Your task to perform on an android device: set the stopwatch Image 0: 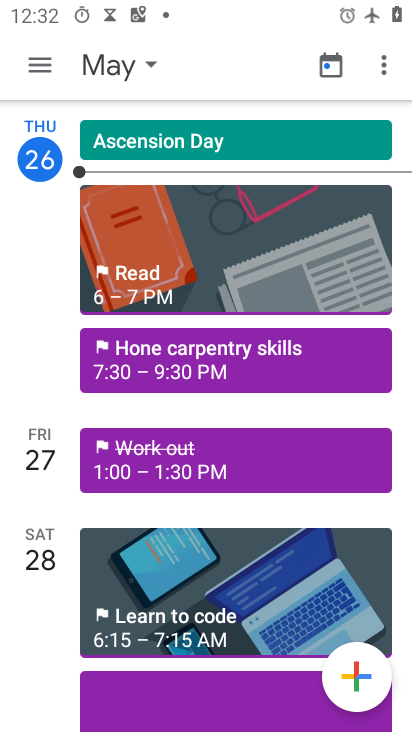
Step 0: press home button
Your task to perform on an android device: set the stopwatch Image 1: 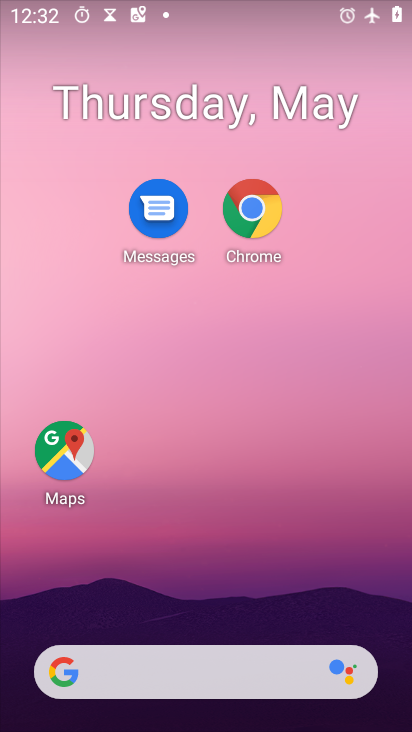
Step 1: drag from (191, 604) to (177, 53)
Your task to perform on an android device: set the stopwatch Image 2: 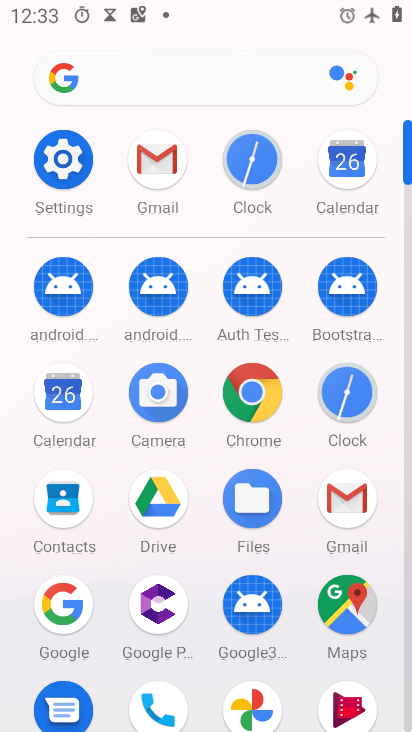
Step 2: click (340, 416)
Your task to perform on an android device: set the stopwatch Image 3: 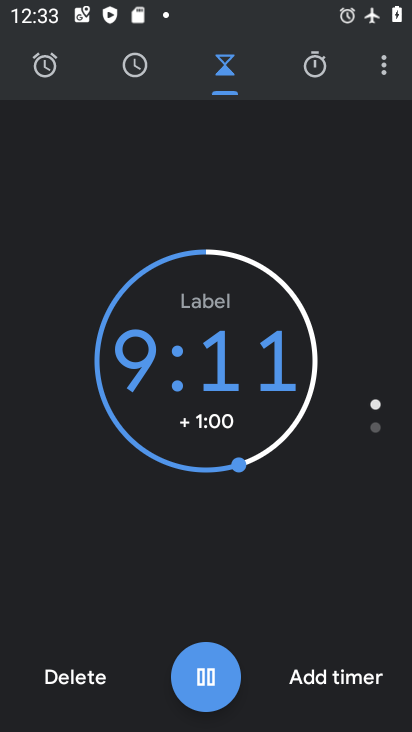
Step 3: click (324, 77)
Your task to perform on an android device: set the stopwatch Image 4: 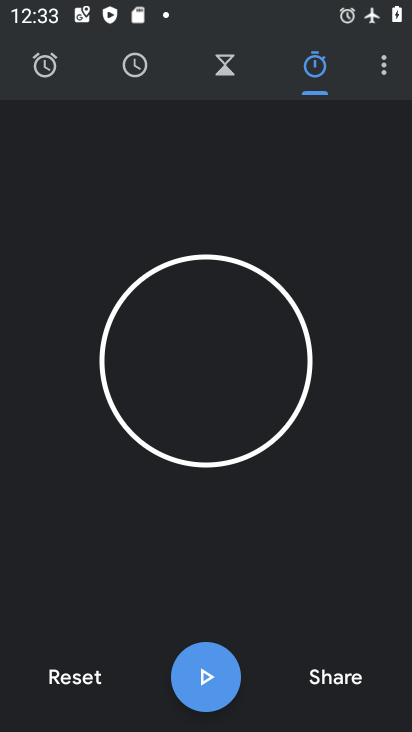
Step 4: click (62, 683)
Your task to perform on an android device: set the stopwatch Image 5: 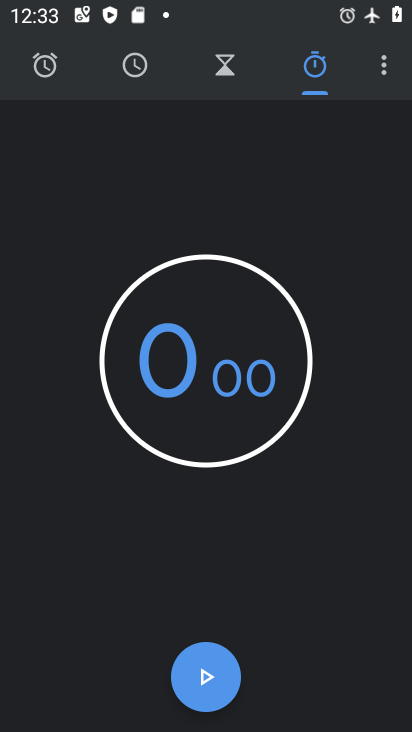
Step 5: click (195, 684)
Your task to perform on an android device: set the stopwatch Image 6: 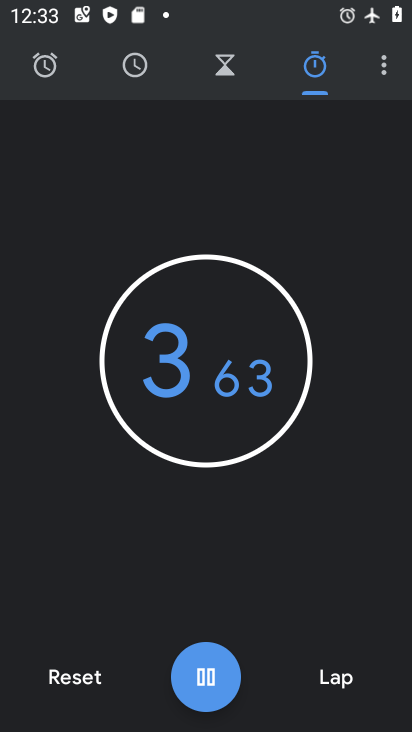
Step 6: click (204, 684)
Your task to perform on an android device: set the stopwatch Image 7: 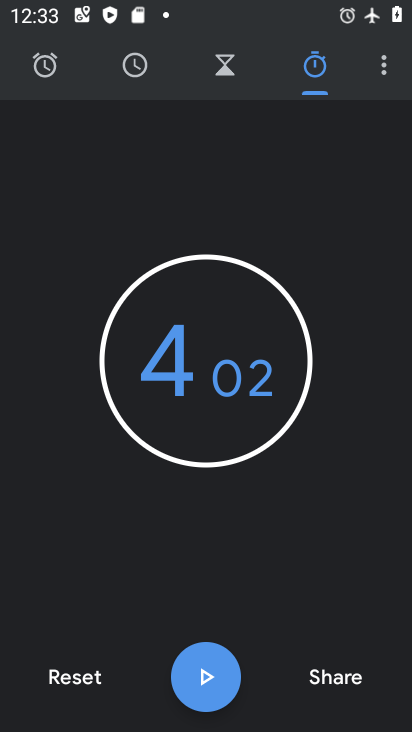
Step 7: task complete